Your task to perform on an android device: What's the weather today? Image 0: 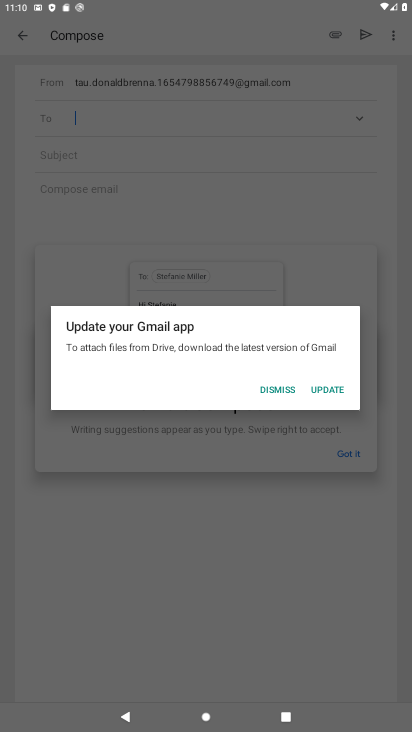
Step 0: press home button
Your task to perform on an android device: What's the weather today? Image 1: 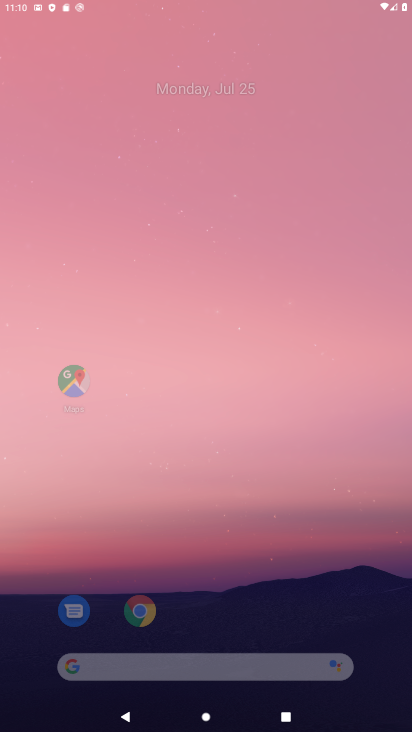
Step 1: drag from (261, 554) to (374, 62)
Your task to perform on an android device: What's the weather today? Image 2: 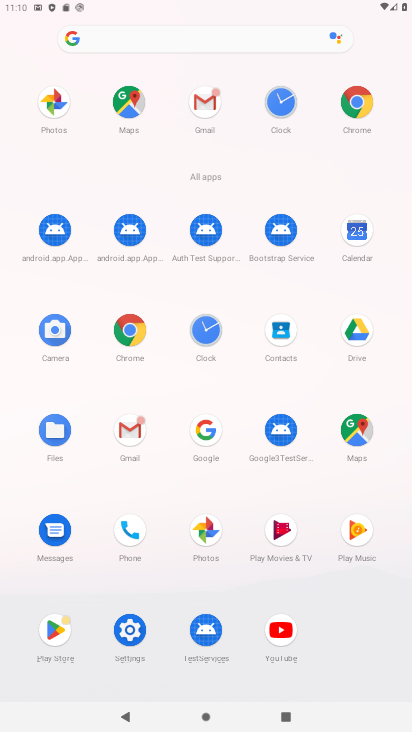
Step 2: click (147, 42)
Your task to perform on an android device: What's the weather today? Image 3: 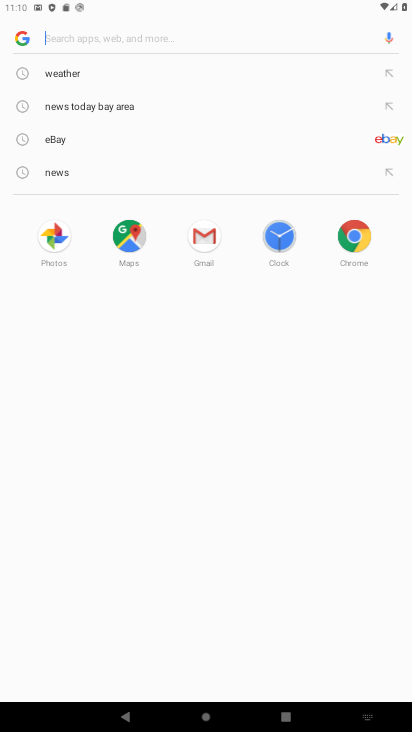
Step 3: type "weather today?"
Your task to perform on an android device: What's the weather today? Image 4: 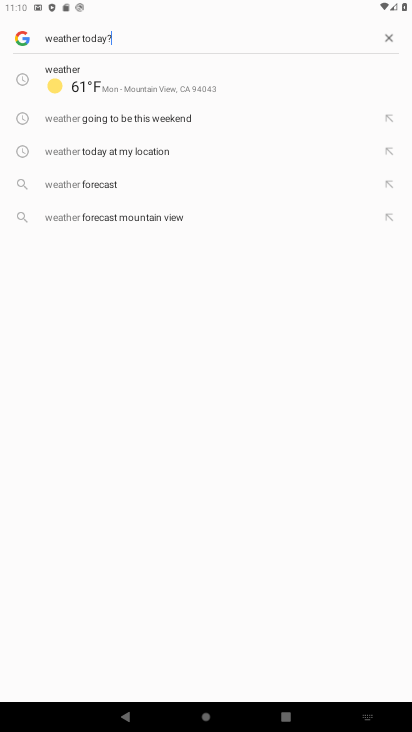
Step 4: type ""
Your task to perform on an android device: What's the weather today? Image 5: 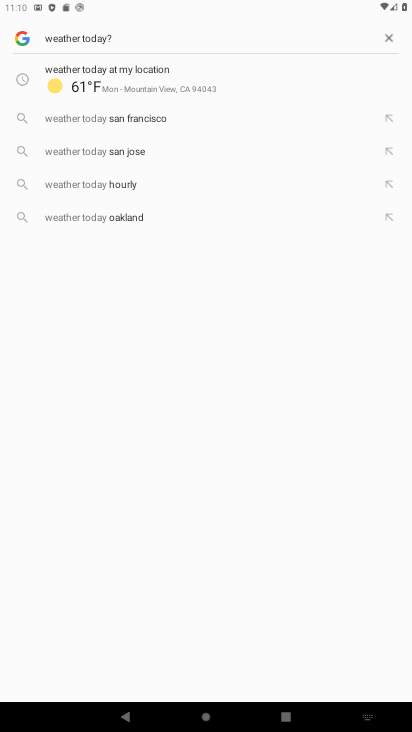
Step 5: click (119, 77)
Your task to perform on an android device: What's the weather today? Image 6: 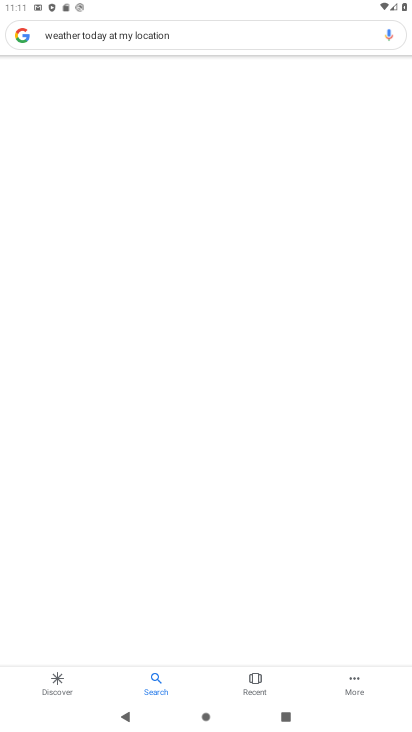
Step 6: task complete